Your task to perform on an android device: set the timer Image 0: 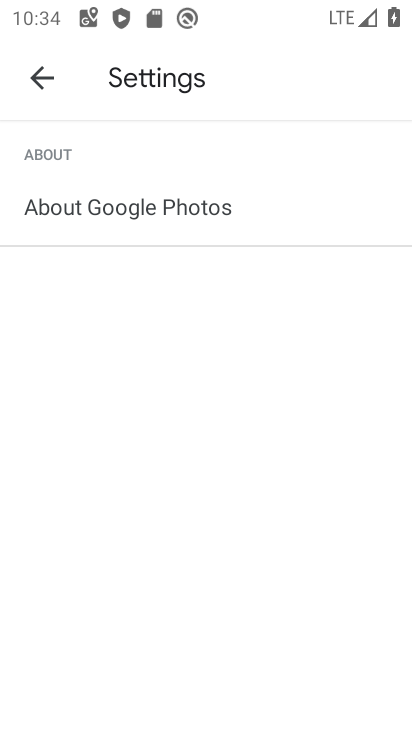
Step 0: press home button
Your task to perform on an android device: set the timer Image 1: 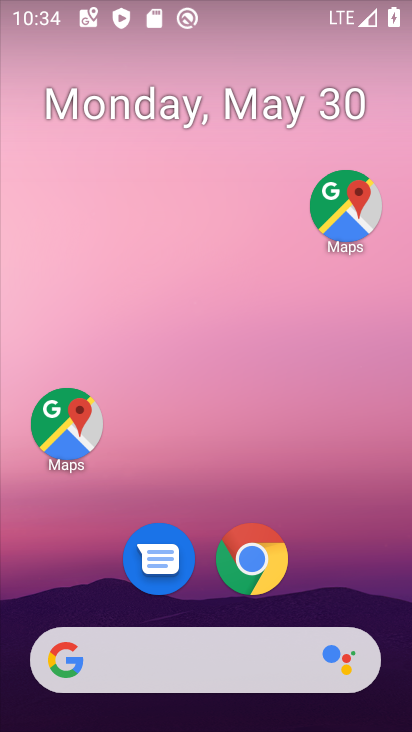
Step 1: drag from (330, 542) to (335, 104)
Your task to perform on an android device: set the timer Image 2: 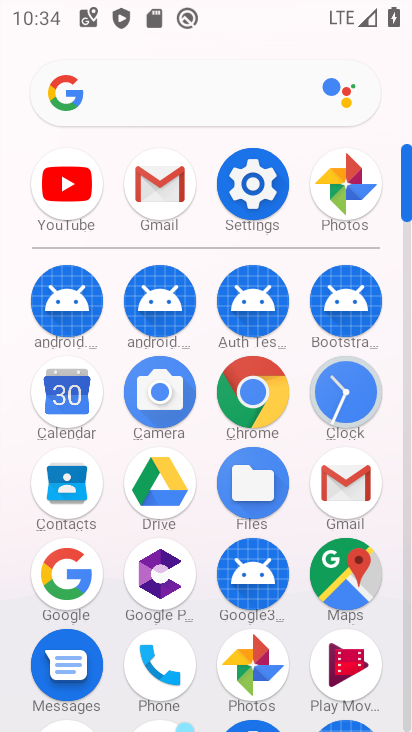
Step 2: click (332, 388)
Your task to perform on an android device: set the timer Image 3: 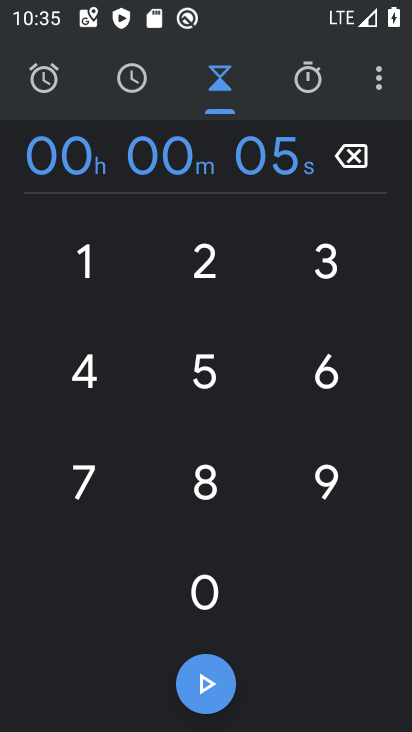
Step 3: task complete